Your task to perform on an android device: delete location history Image 0: 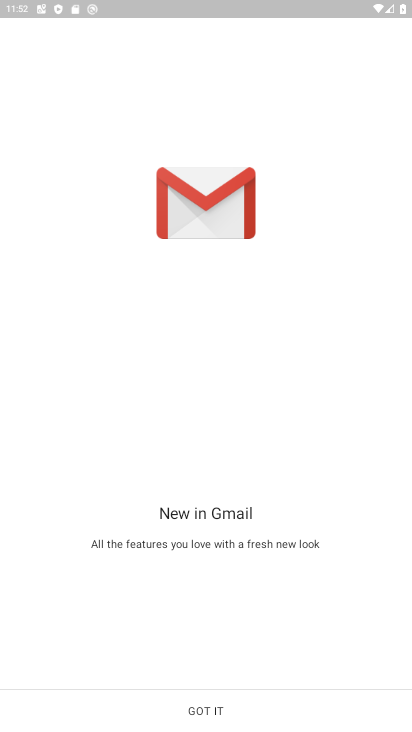
Step 0: press home button
Your task to perform on an android device: delete location history Image 1: 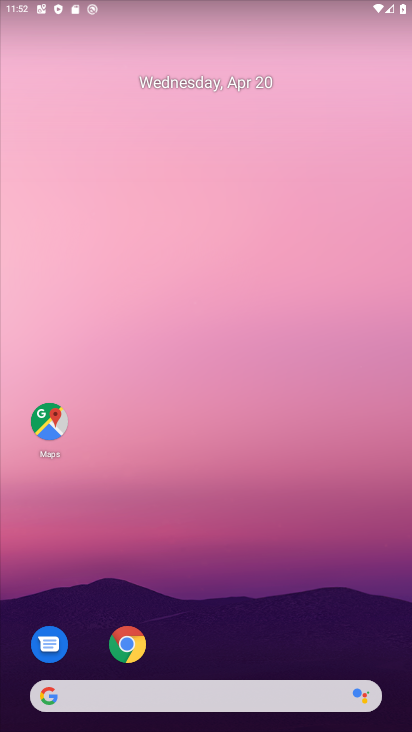
Step 1: click (48, 422)
Your task to perform on an android device: delete location history Image 2: 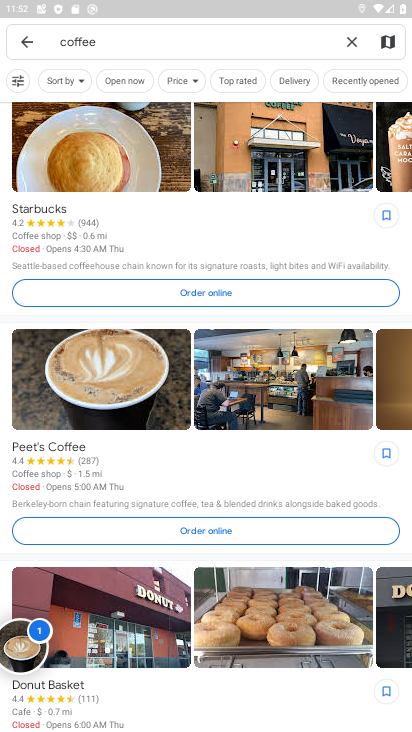
Step 2: press back button
Your task to perform on an android device: delete location history Image 3: 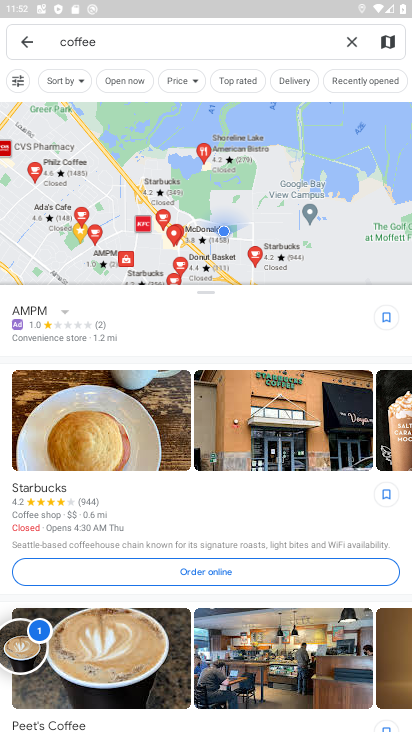
Step 3: press back button
Your task to perform on an android device: delete location history Image 4: 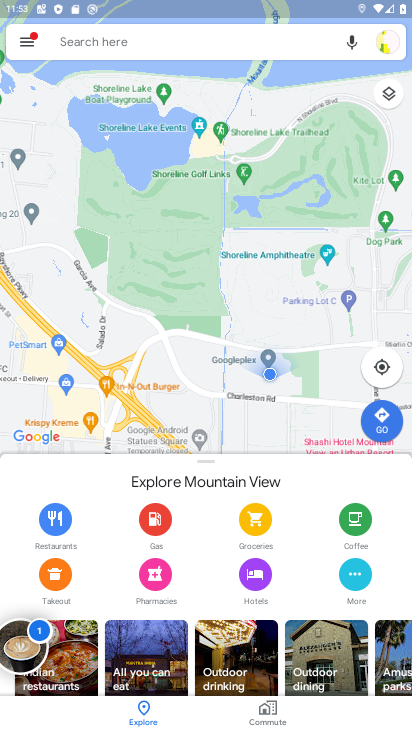
Step 4: click (30, 39)
Your task to perform on an android device: delete location history Image 5: 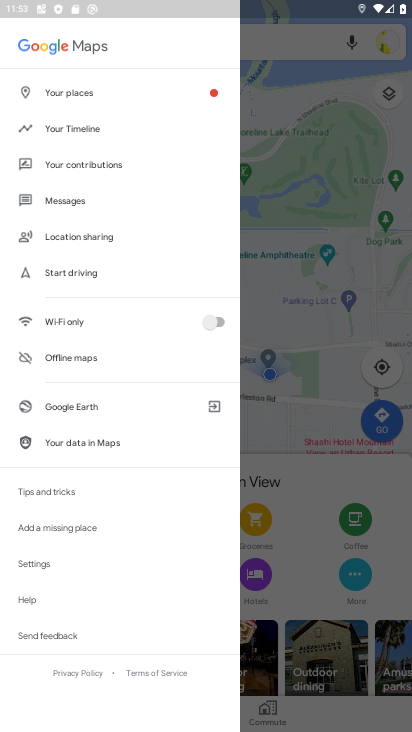
Step 5: click (28, 563)
Your task to perform on an android device: delete location history Image 6: 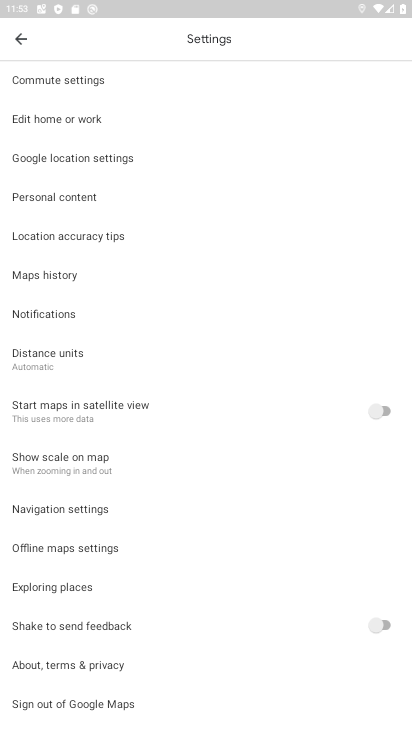
Step 6: click (46, 196)
Your task to perform on an android device: delete location history Image 7: 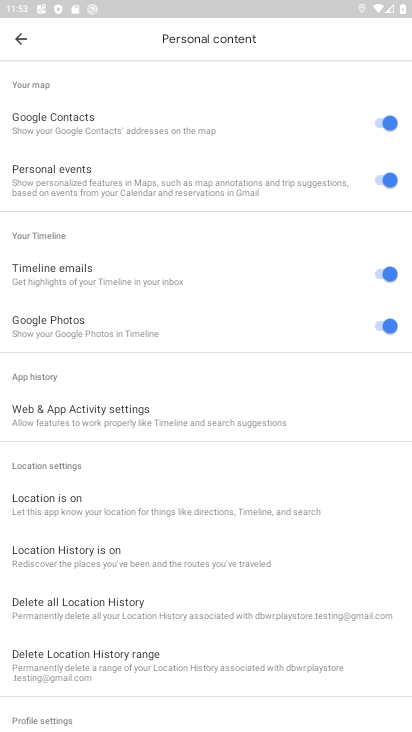
Step 7: drag from (230, 525) to (250, 279)
Your task to perform on an android device: delete location history Image 8: 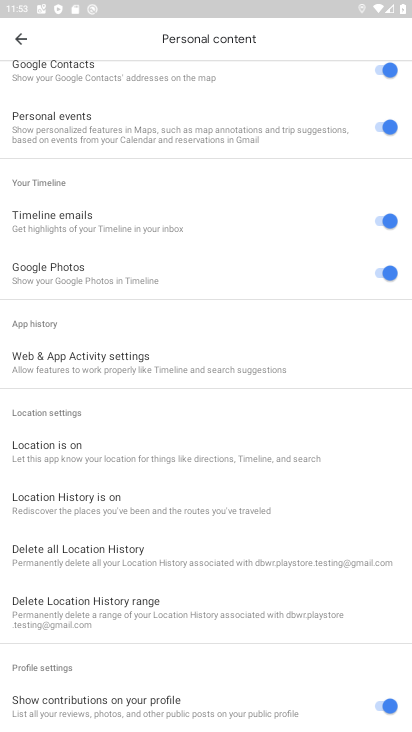
Step 8: click (58, 557)
Your task to perform on an android device: delete location history Image 9: 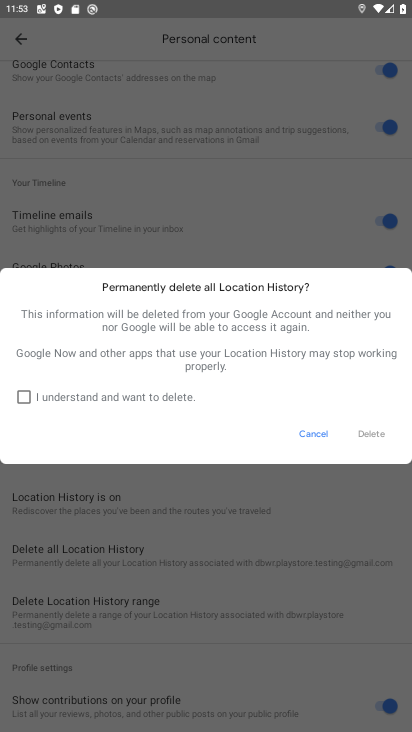
Step 9: click (23, 397)
Your task to perform on an android device: delete location history Image 10: 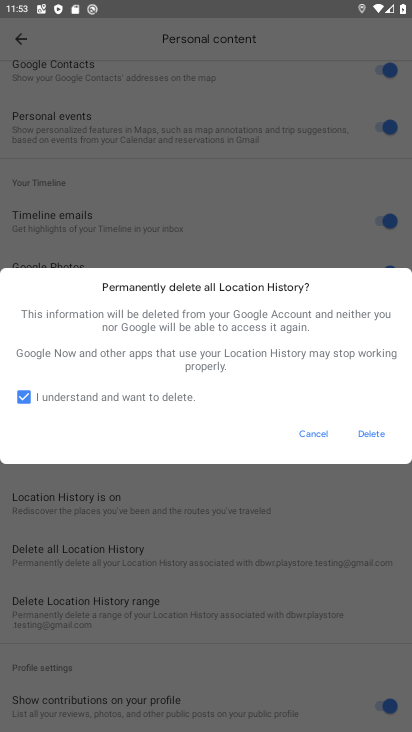
Step 10: click (371, 433)
Your task to perform on an android device: delete location history Image 11: 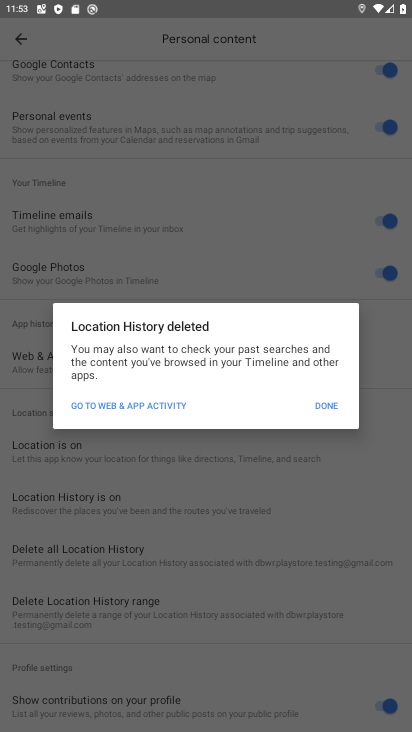
Step 11: click (317, 401)
Your task to perform on an android device: delete location history Image 12: 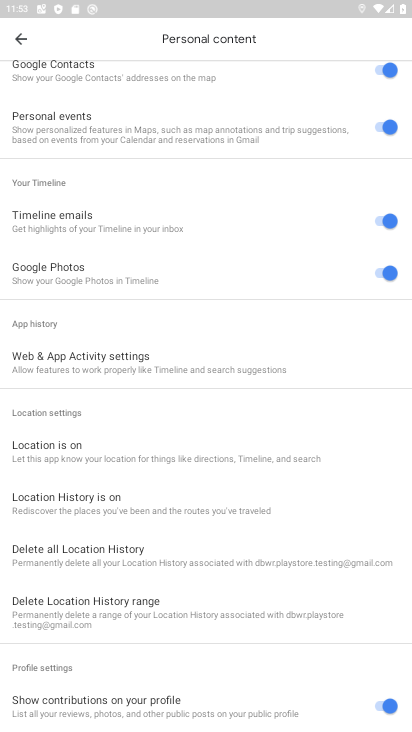
Step 12: task complete